Your task to perform on an android device: move an email to a new category in the gmail app Image 0: 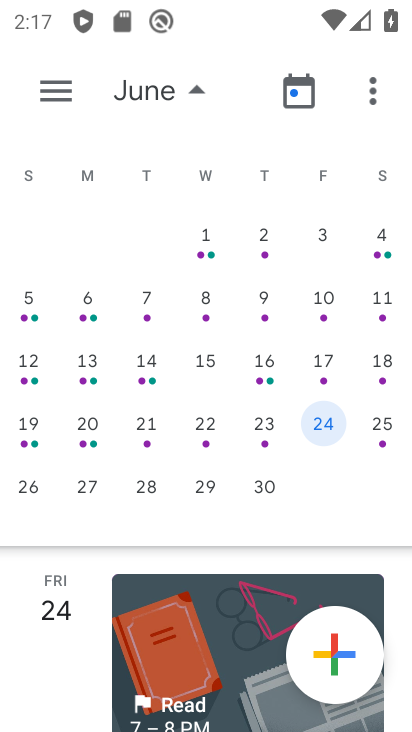
Step 0: press home button
Your task to perform on an android device: move an email to a new category in the gmail app Image 1: 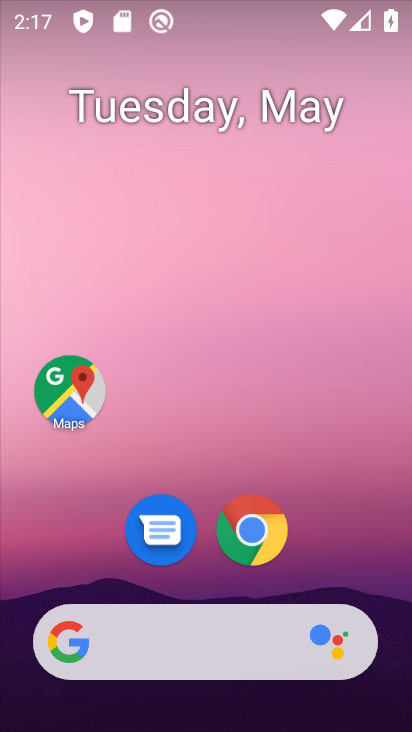
Step 1: drag from (19, 536) to (197, 170)
Your task to perform on an android device: move an email to a new category in the gmail app Image 2: 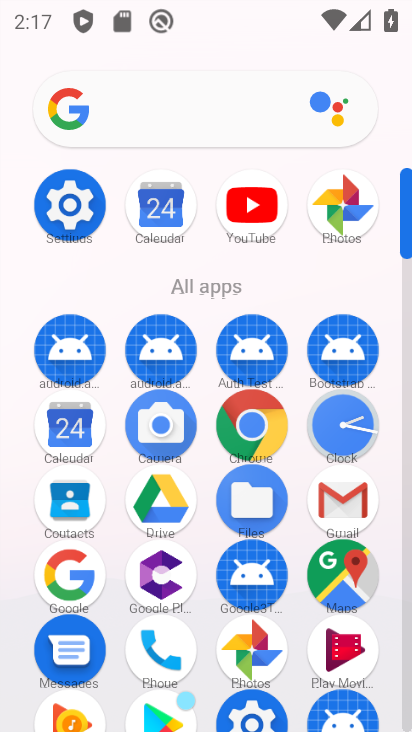
Step 2: click (334, 488)
Your task to perform on an android device: move an email to a new category in the gmail app Image 3: 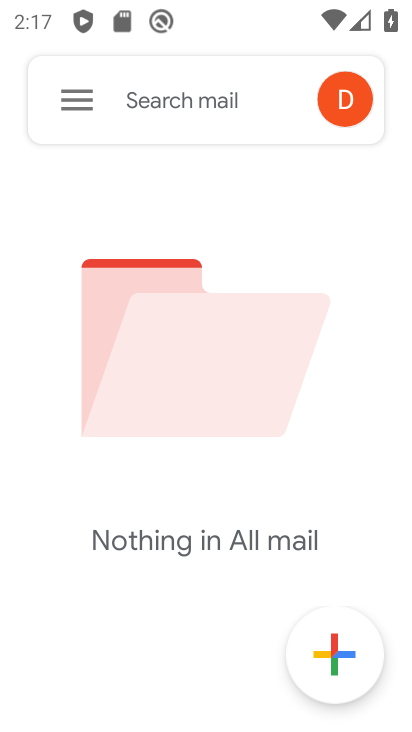
Step 3: press home button
Your task to perform on an android device: move an email to a new category in the gmail app Image 4: 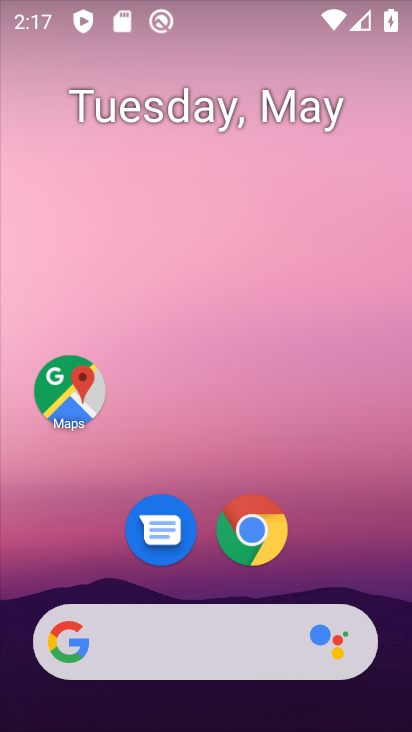
Step 4: drag from (8, 692) to (216, 144)
Your task to perform on an android device: move an email to a new category in the gmail app Image 5: 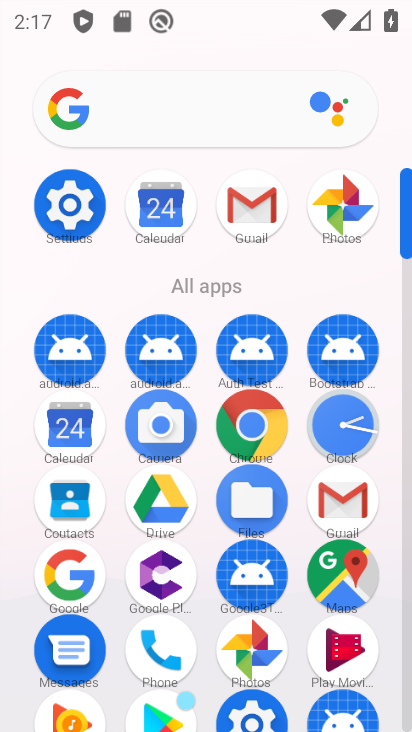
Step 5: click (232, 198)
Your task to perform on an android device: move an email to a new category in the gmail app Image 6: 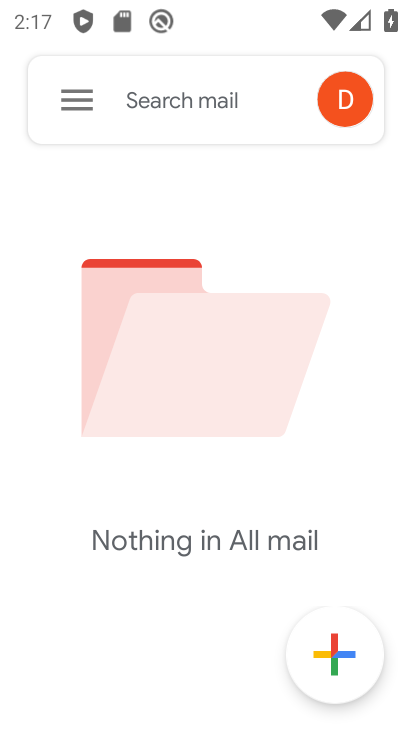
Step 6: task complete